Your task to perform on an android device: Open calendar and show me the third week of next month Image 0: 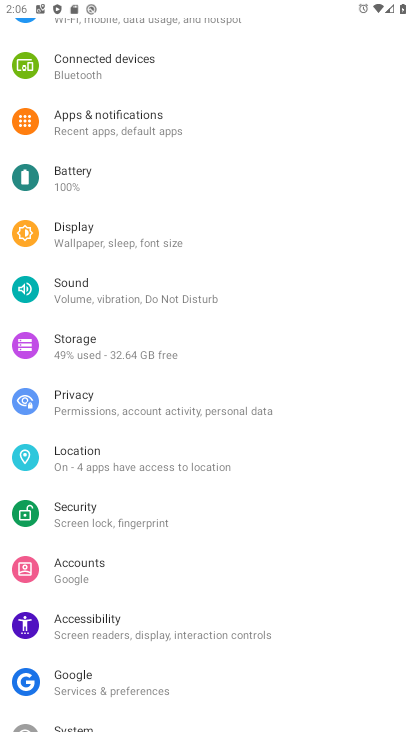
Step 0: press home button
Your task to perform on an android device: Open calendar and show me the third week of next month Image 1: 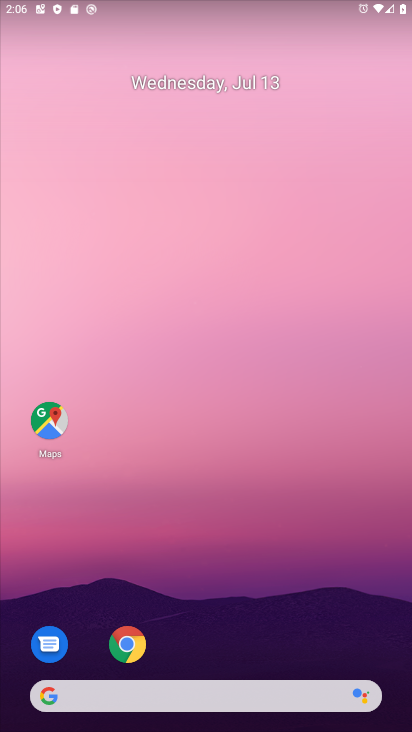
Step 1: drag from (225, 638) to (176, 200)
Your task to perform on an android device: Open calendar and show me the third week of next month Image 2: 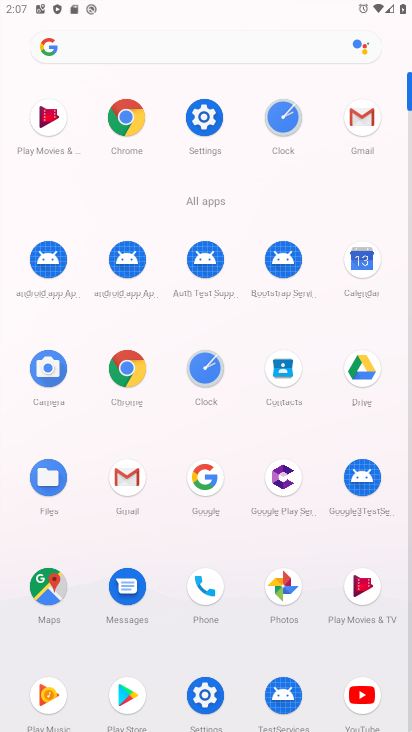
Step 2: click (357, 237)
Your task to perform on an android device: Open calendar and show me the third week of next month Image 3: 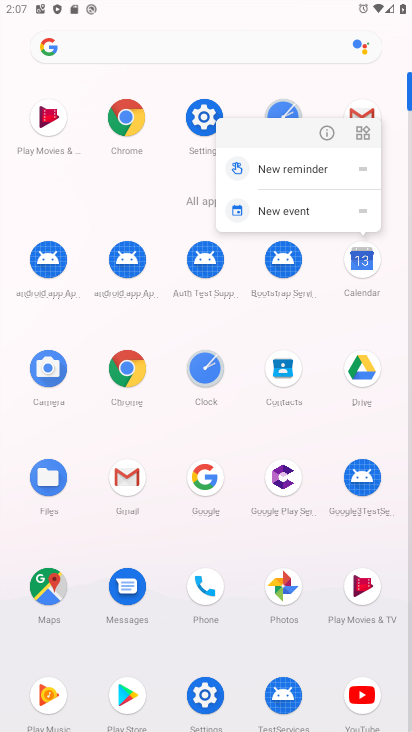
Step 3: click (359, 272)
Your task to perform on an android device: Open calendar and show me the third week of next month Image 4: 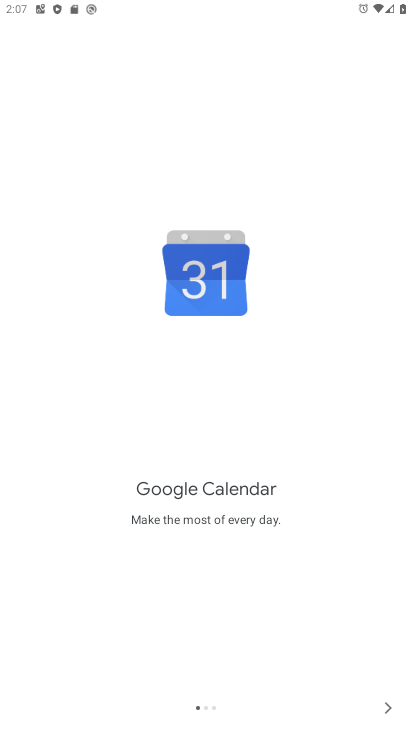
Step 4: click (390, 704)
Your task to perform on an android device: Open calendar and show me the third week of next month Image 5: 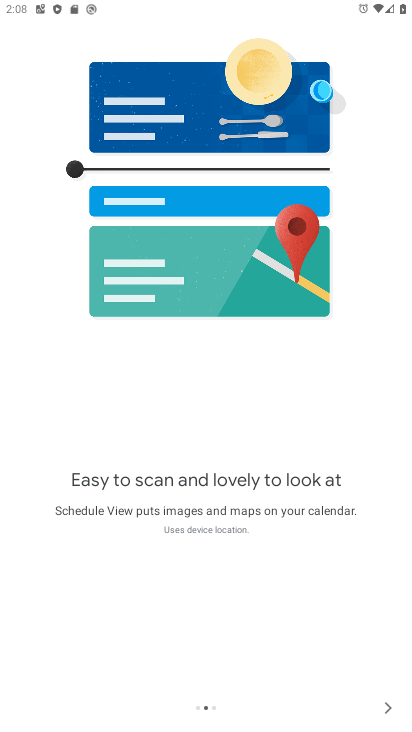
Step 5: click (384, 702)
Your task to perform on an android device: Open calendar and show me the third week of next month Image 6: 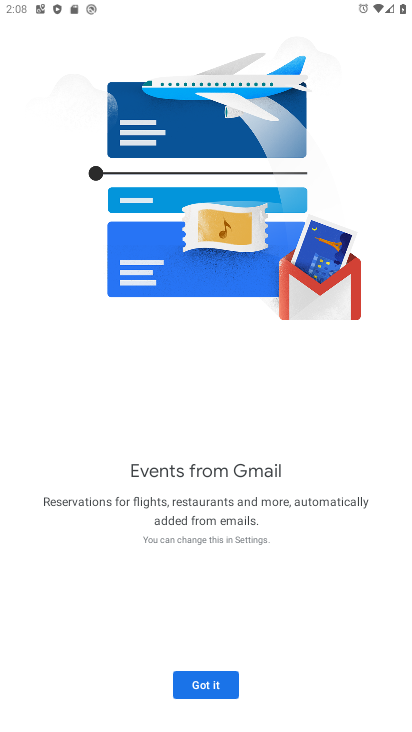
Step 6: click (227, 690)
Your task to perform on an android device: Open calendar and show me the third week of next month Image 7: 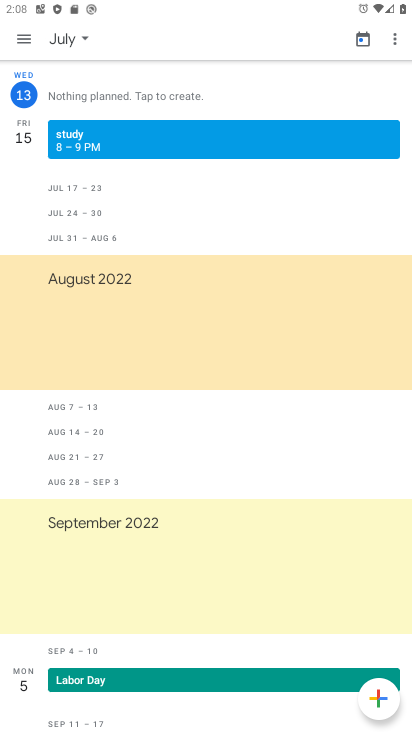
Step 7: click (21, 41)
Your task to perform on an android device: Open calendar and show me the third week of next month Image 8: 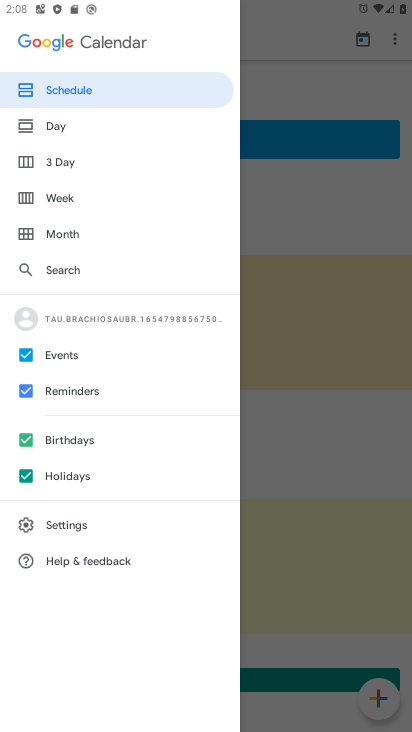
Step 8: click (74, 196)
Your task to perform on an android device: Open calendar and show me the third week of next month Image 9: 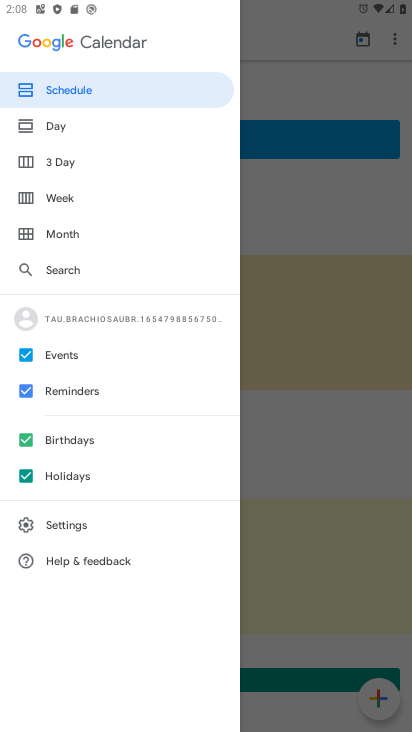
Step 9: click (67, 191)
Your task to perform on an android device: Open calendar and show me the third week of next month Image 10: 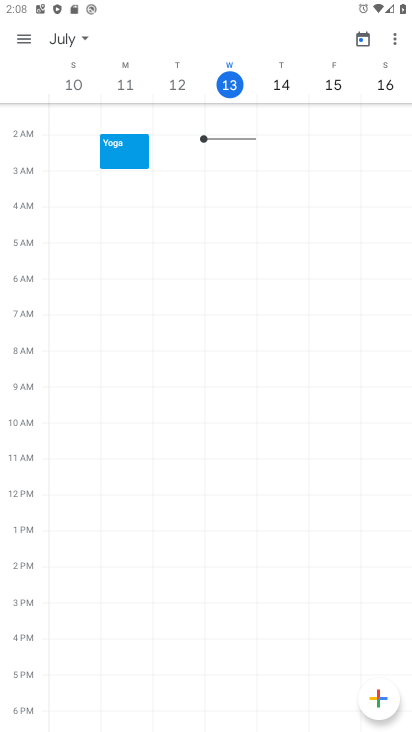
Step 10: task complete